Your task to perform on an android device: show emergency info Image 0: 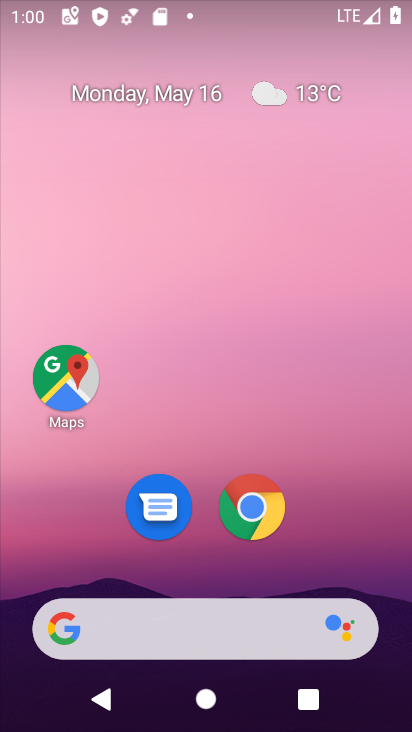
Step 0: drag from (342, 550) to (278, 22)
Your task to perform on an android device: show emergency info Image 1: 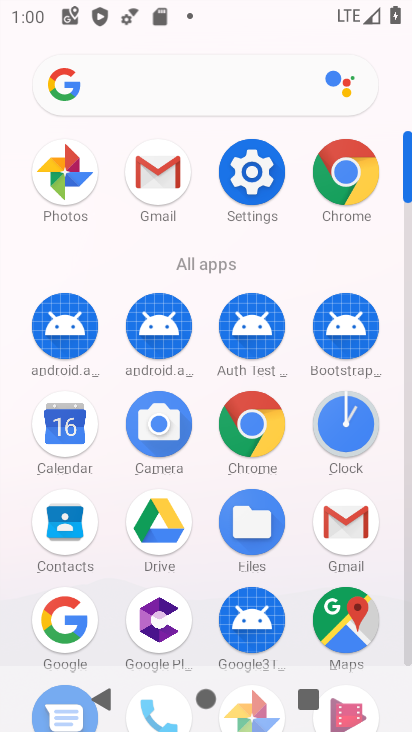
Step 1: click (252, 173)
Your task to perform on an android device: show emergency info Image 2: 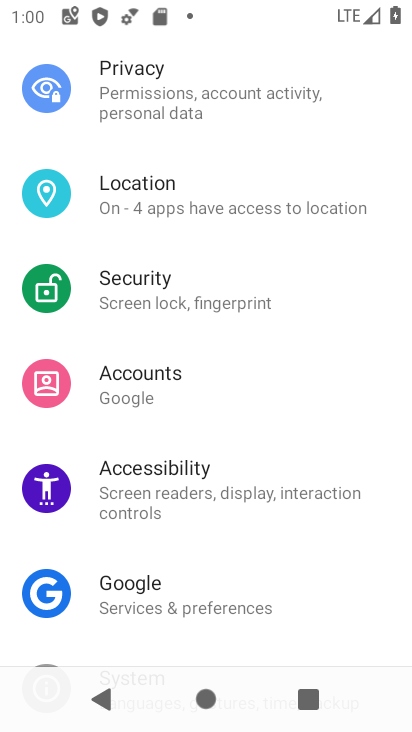
Step 2: drag from (225, 141) to (195, 551)
Your task to perform on an android device: show emergency info Image 3: 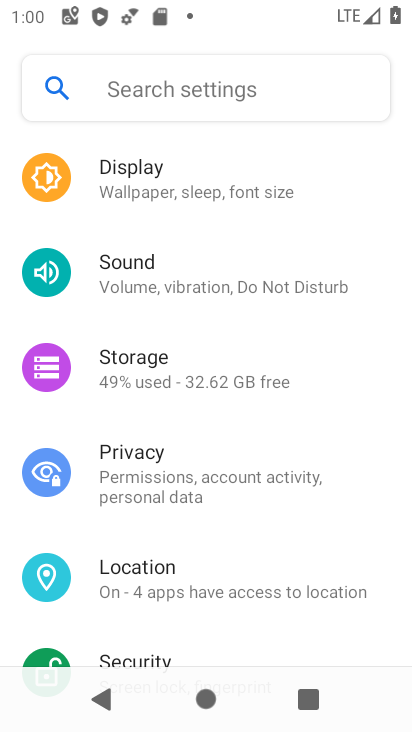
Step 3: drag from (239, 193) to (213, 525)
Your task to perform on an android device: show emergency info Image 4: 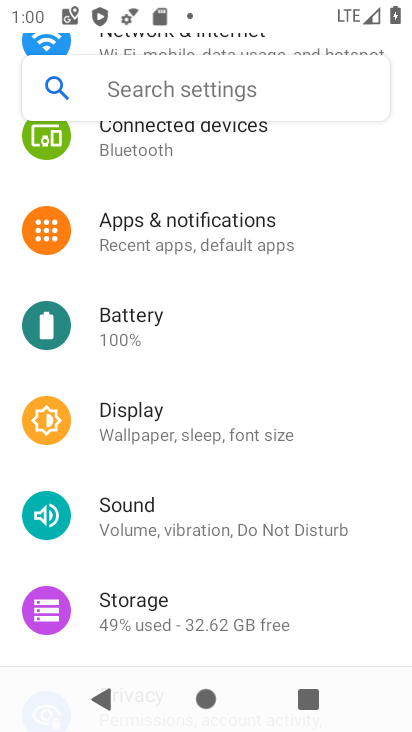
Step 4: drag from (230, 384) to (256, 44)
Your task to perform on an android device: show emergency info Image 5: 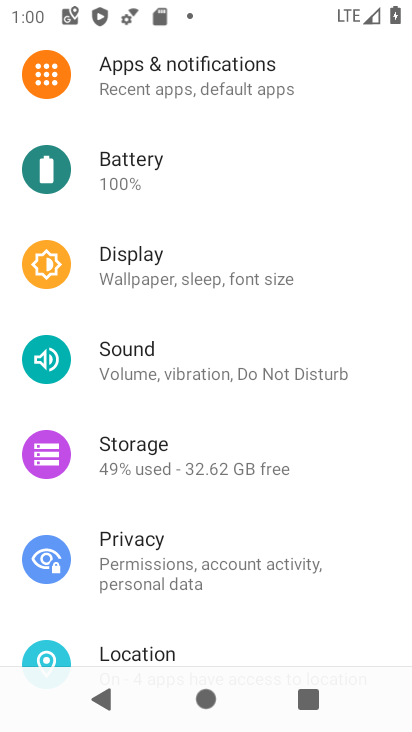
Step 5: drag from (176, 513) to (219, 80)
Your task to perform on an android device: show emergency info Image 6: 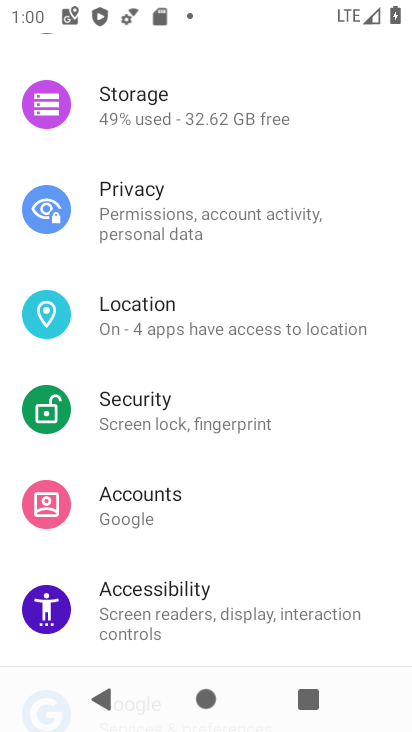
Step 6: drag from (185, 557) to (203, 187)
Your task to perform on an android device: show emergency info Image 7: 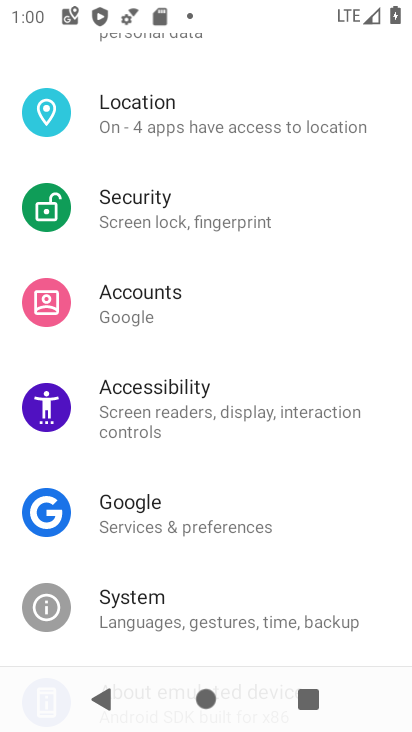
Step 7: drag from (189, 568) to (181, 227)
Your task to perform on an android device: show emergency info Image 8: 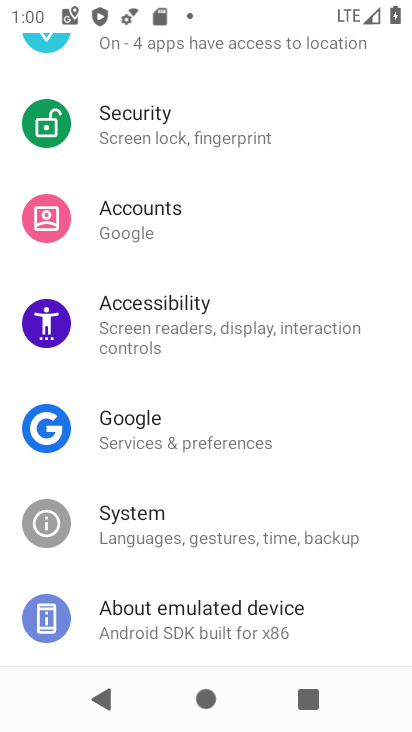
Step 8: drag from (206, 566) to (229, 252)
Your task to perform on an android device: show emergency info Image 9: 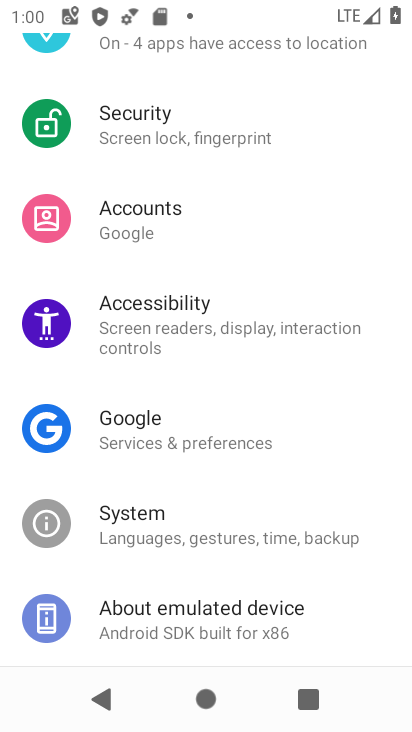
Step 9: click (193, 611)
Your task to perform on an android device: show emergency info Image 10: 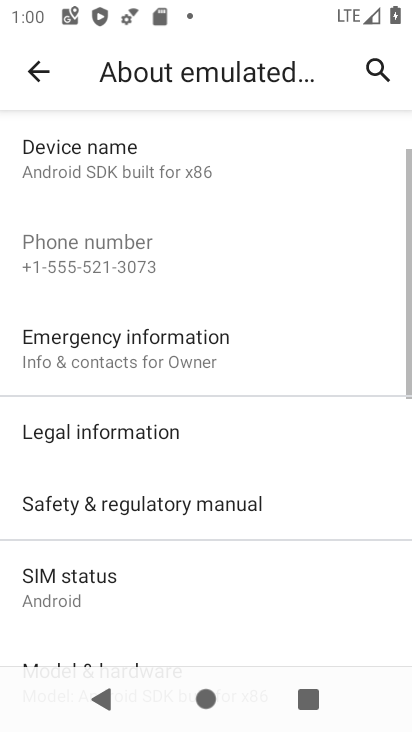
Step 10: click (162, 348)
Your task to perform on an android device: show emergency info Image 11: 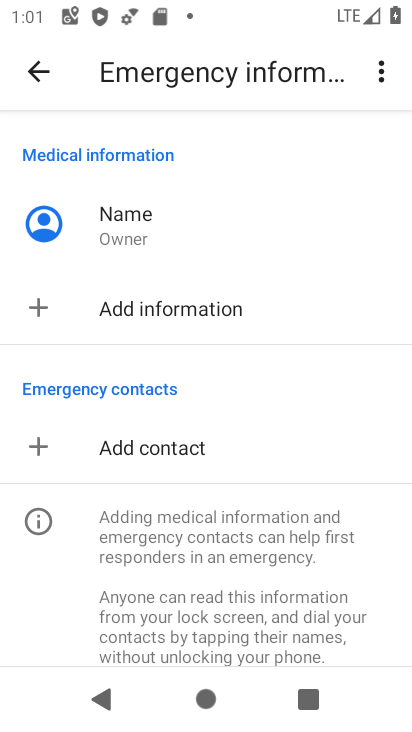
Step 11: task complete